Your task to perform on an android device: toggle javascript in the chrome app Image 0: 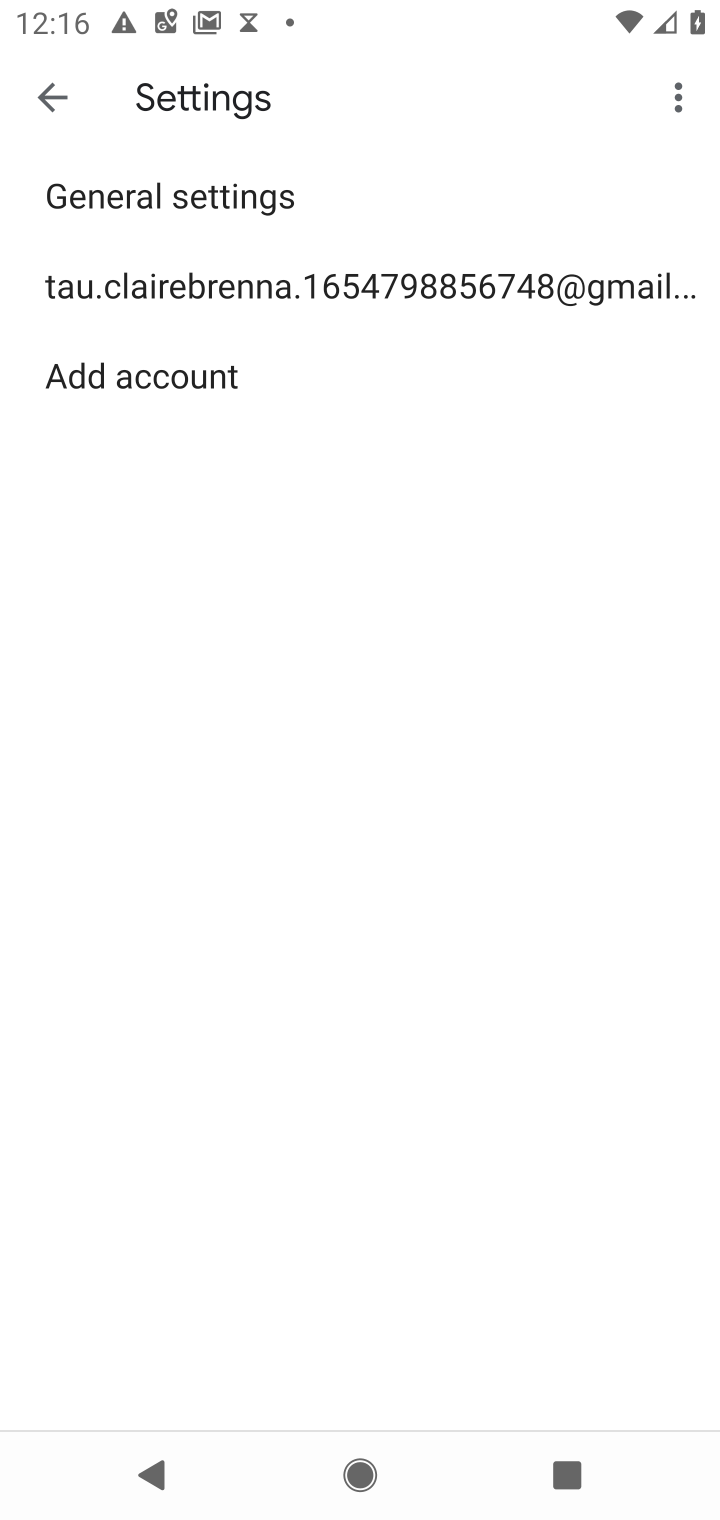
Step 0: press home button
Your task to perform on an android device: toggle javascript in the chrome app Image 1: 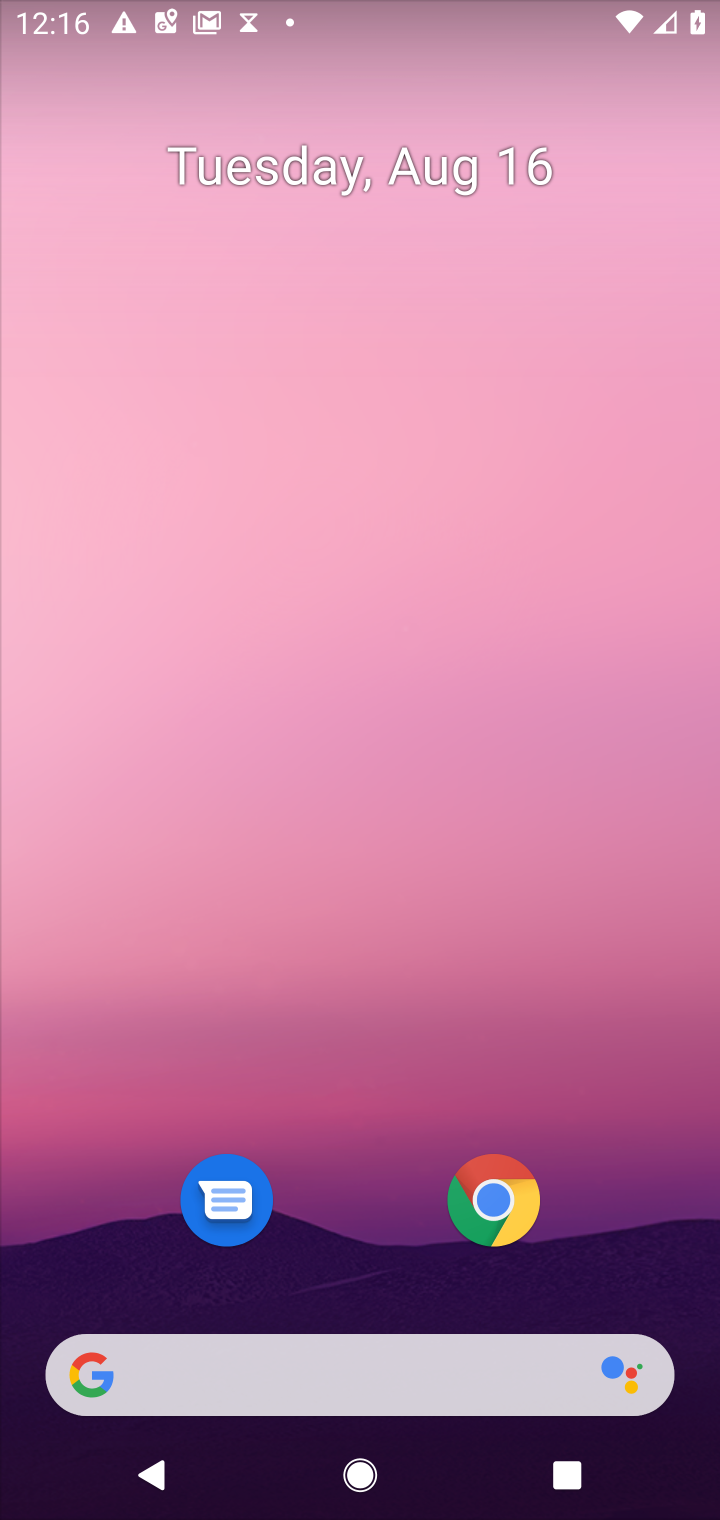
Step 1: click (482, 1178)
Your task to perform on an android device: toggle javascript in the chrome app Image 2: 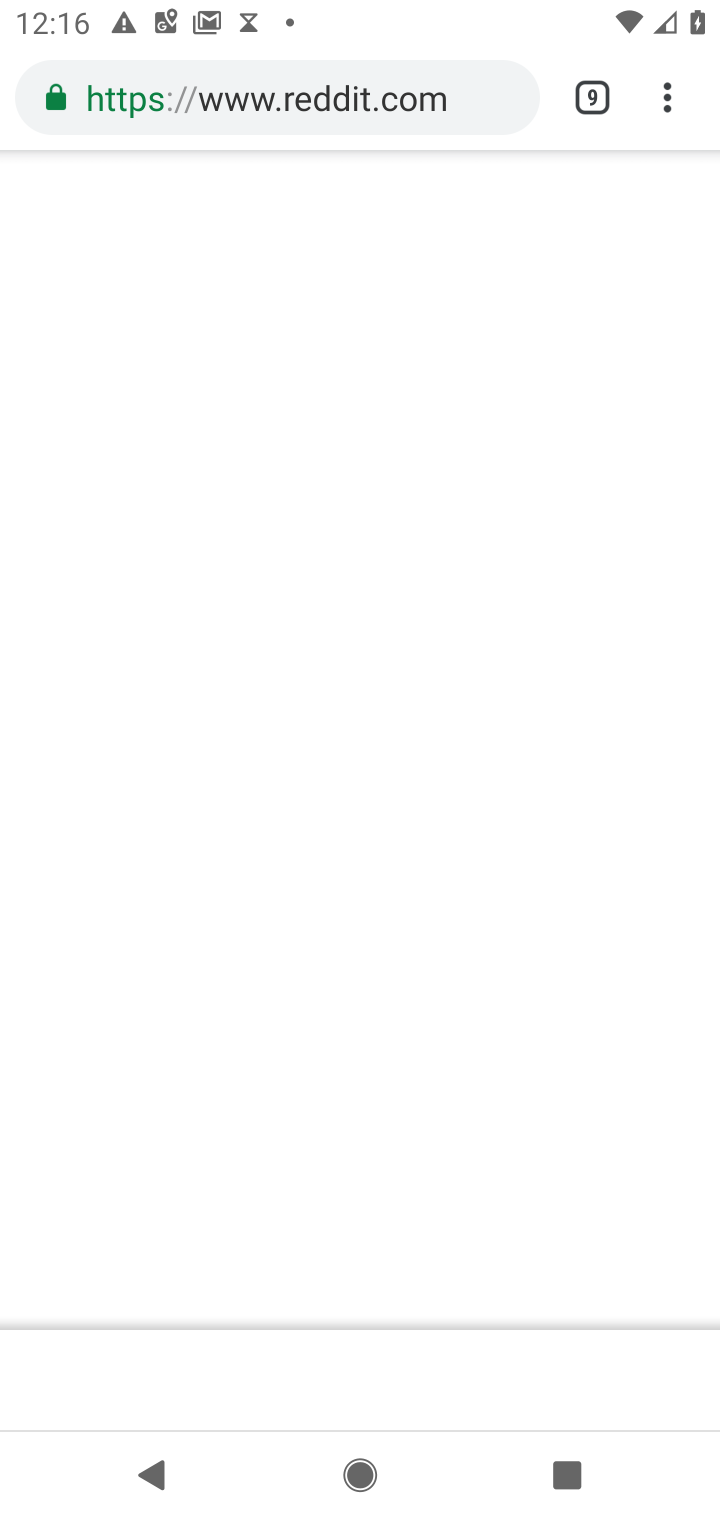
Step 2: click (661, 85)
Your task to perform on an android device: toggle javascript in the chrome app Image 3: 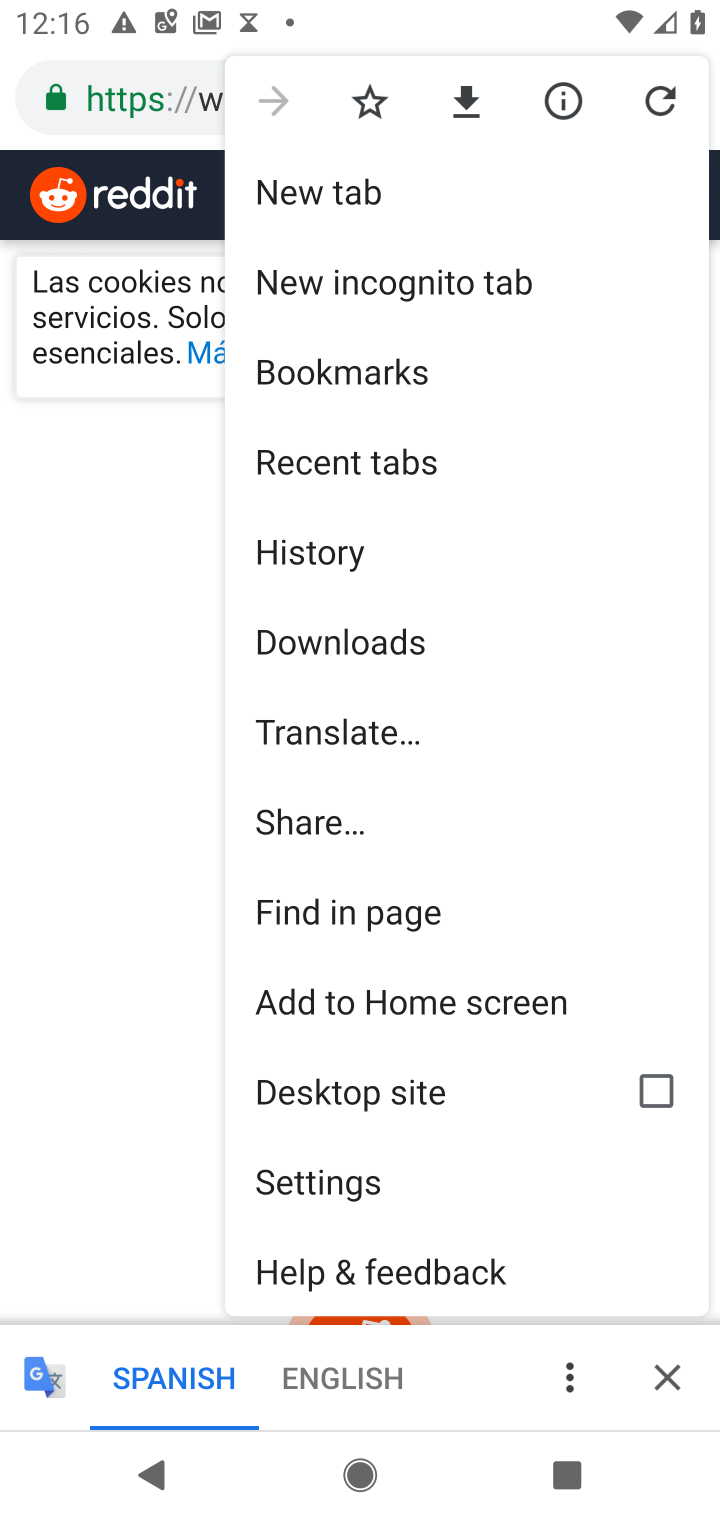
Step 3: click (337, 1174)
Your task to perform on an android device: toggle javascript in the chrome app Image 4: 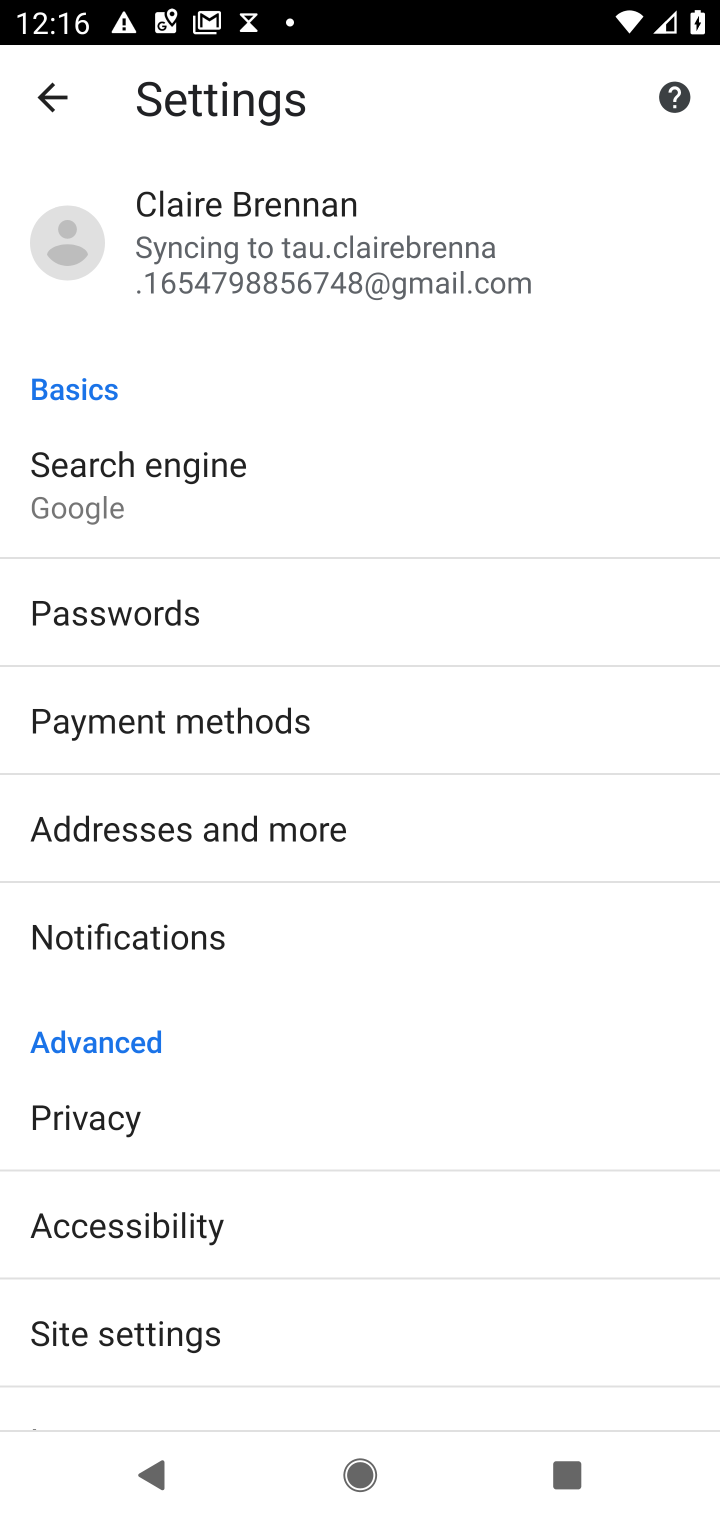
Step 4: click (262, 1321)
Your task to perform on an android device: toggle javascript in the chrome app Image 5: 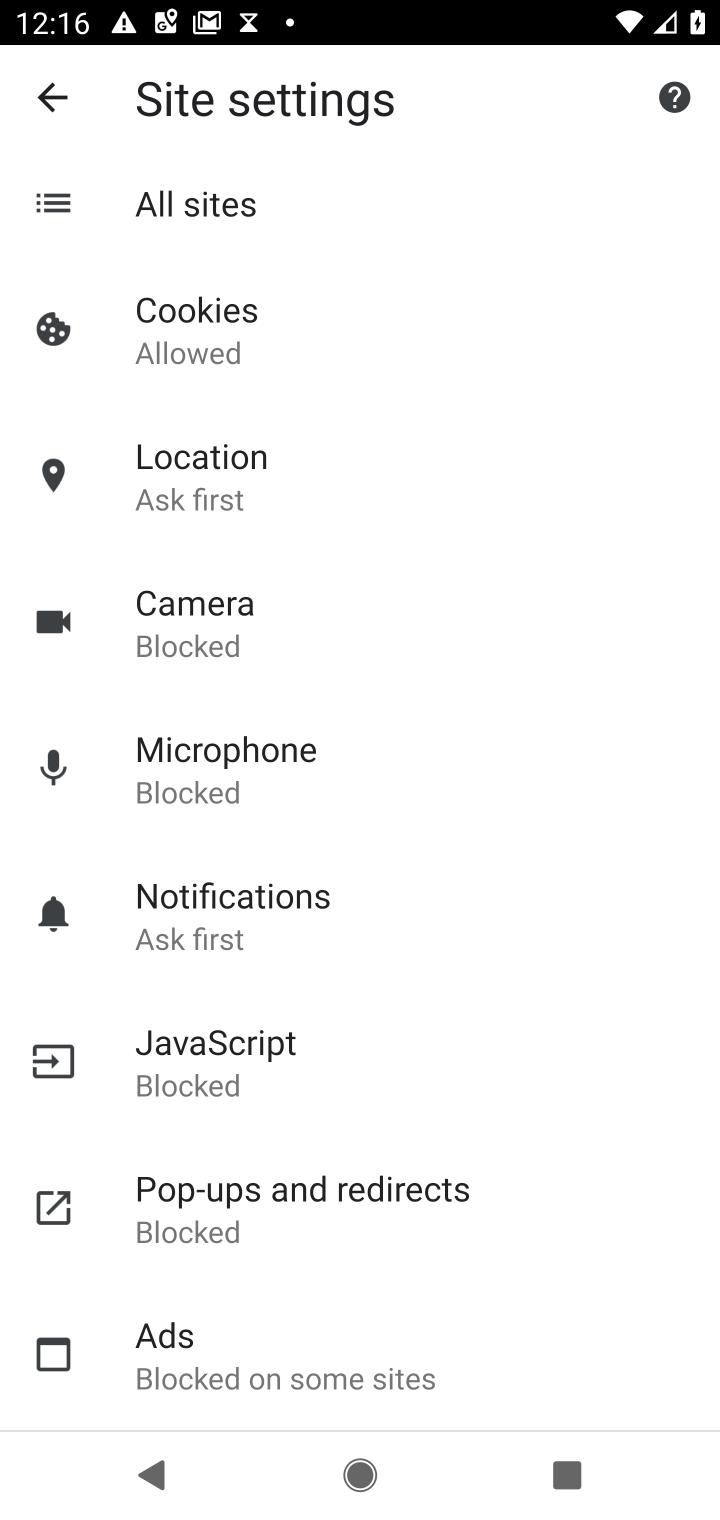
Step 5: click (316, 1064)
Your task to perform on an android device: toggle javascript in the chrome app Image 6: 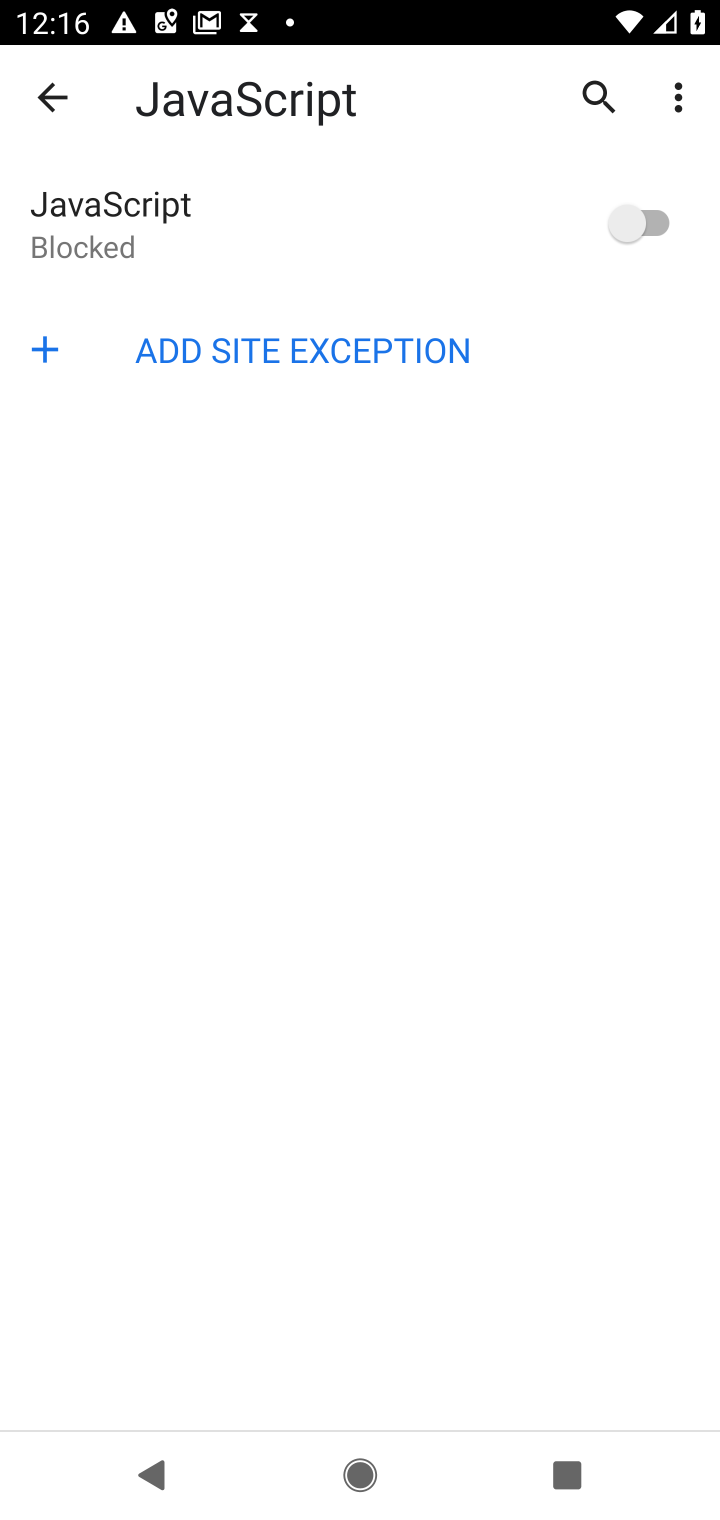
Step 6: click (651, 229)
Your task to perform on an android device: toggle javascript in the chrome app Image 7: 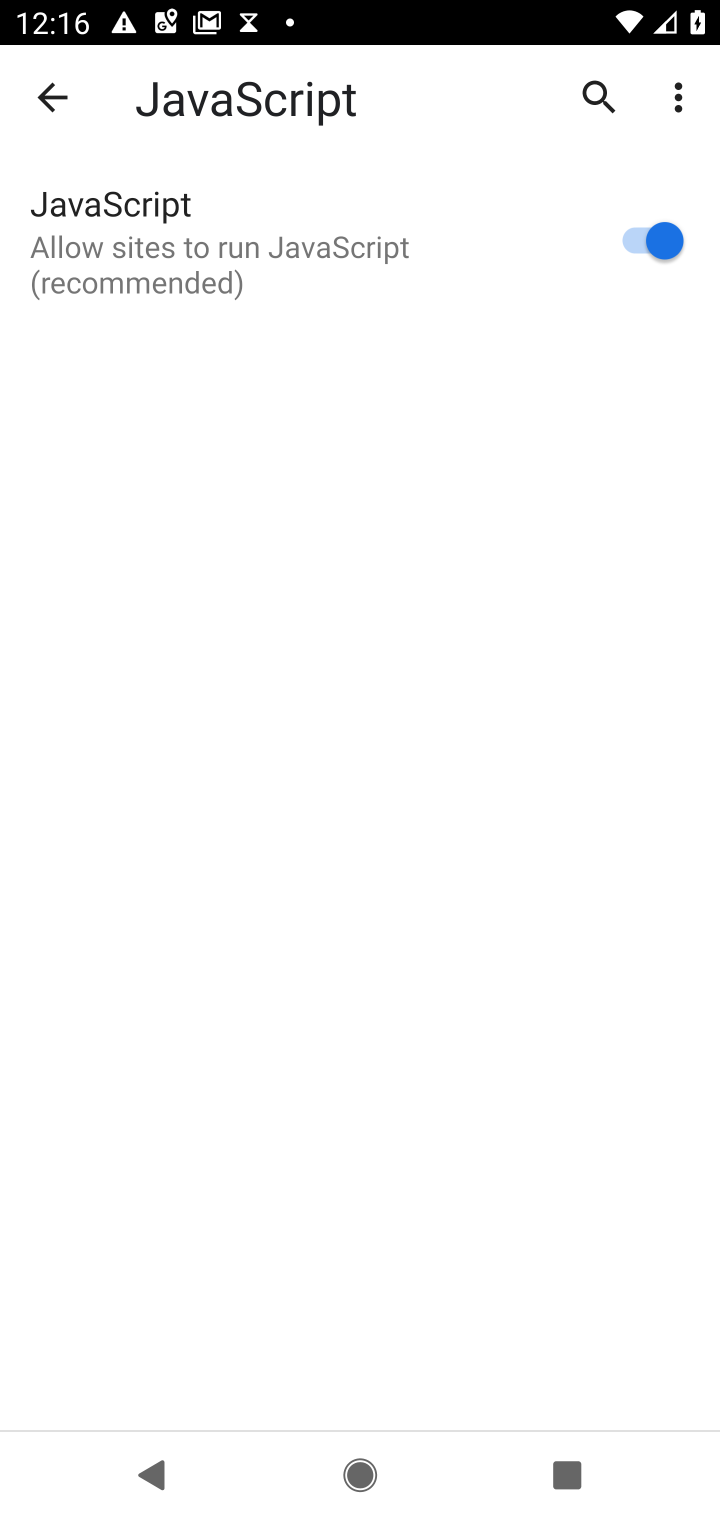
Step 7: task complete